Your task to perform on an android device: Search for seafood restaurants on Google Maps Image 0: 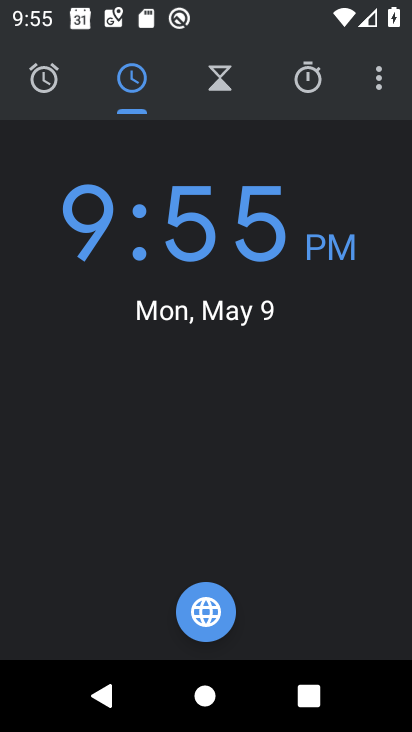
Step 0: press back button
Your task to perform on an android device: Search for seafood restaurants on Google Maps Image 1: 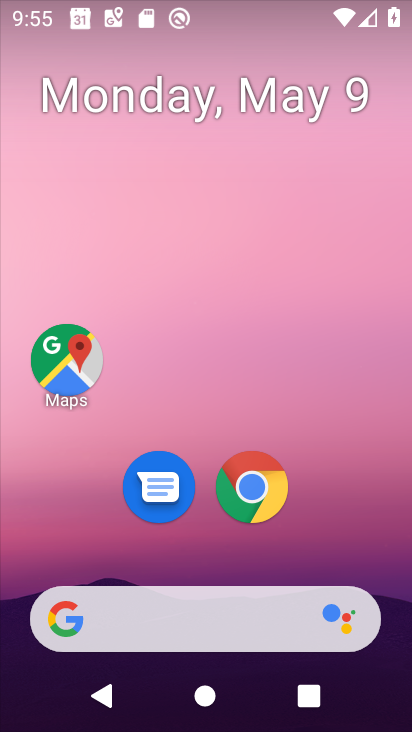
Step 1: click (66, 357)
Your task to perform on an android device: Search for seafood restaurants on Google Maps Image 2: 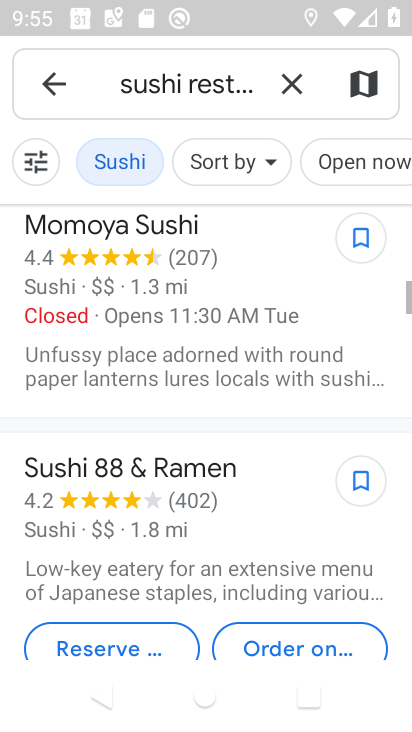
Step 2: click (297, 84)
Your task to perform on an android device: Search for seafood restaurants on Google Maps Image 3: 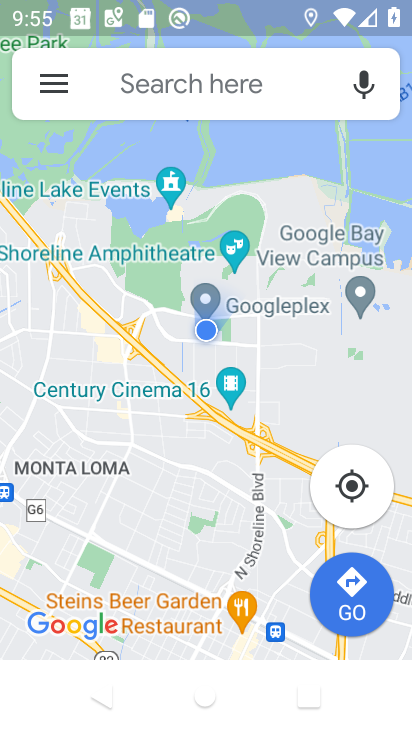
Step 3: click (280, 84)
Your task to perform on an android device: Search for seafood restaurants on Google Maps Image 4: 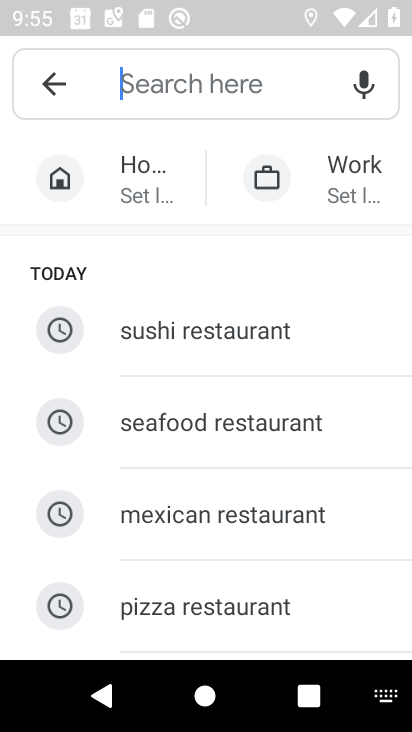
Step 4: click (227, 401)
Your task to perform on an android device: Search for seafood restaurants on Google Maps Image 5: 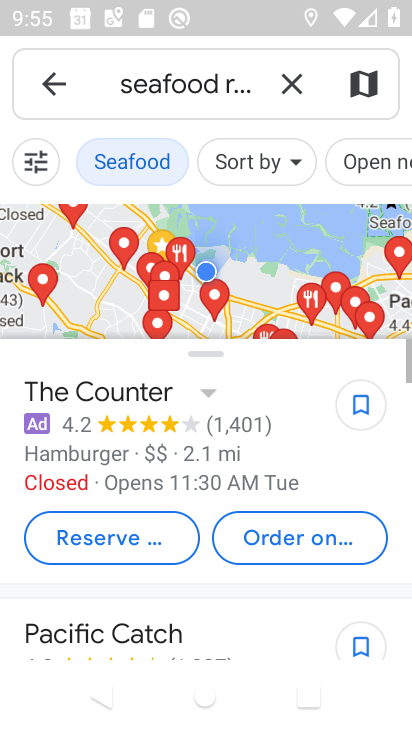
Step 5: task complete